Your task to perform on an android device: turn pop-ups on in chrome Image 0: 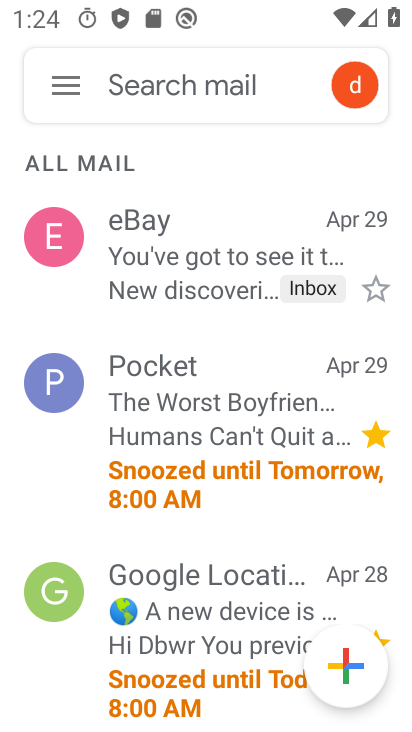
Step 0: press home button
Your task to perform on an android device: turn pop-ups on in chrome Image 1: 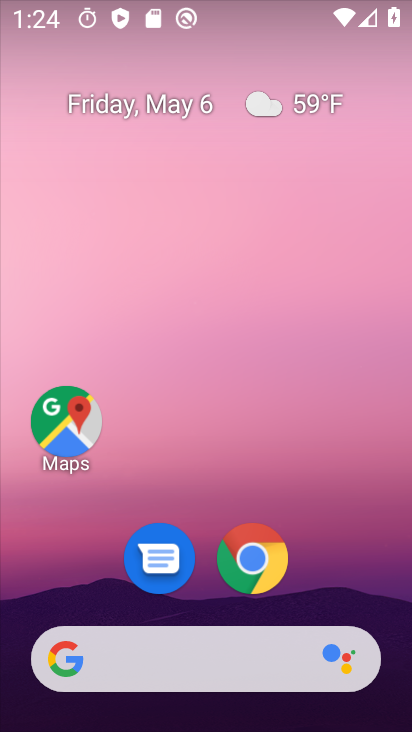
Step 1: click (255, 556)
Your task to perform on an android device: turn pop-ups on in chrome Image 2: 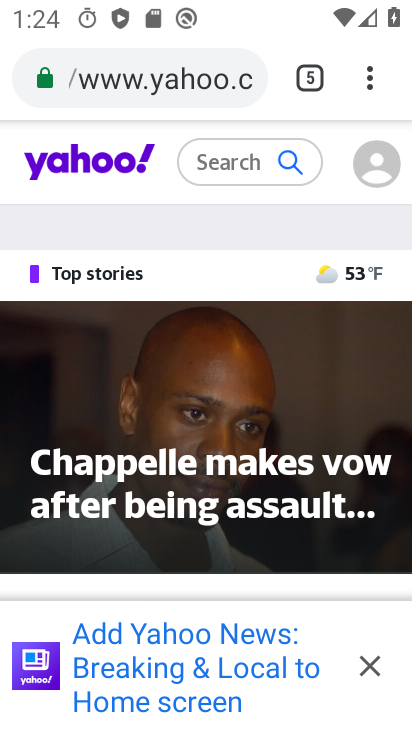
Step 2: drag from (371, 76) to (107, 599)
Your task to perform on an android device: turn pop-ups on in chrome Image 3: 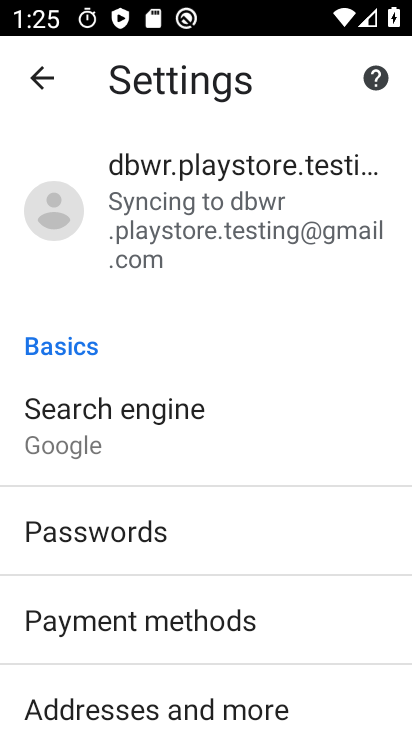
Step 3: drag from (159, 663) to (171, 409)
Your task to perform on an android device: turn pop-ups on in chrome Image 4: 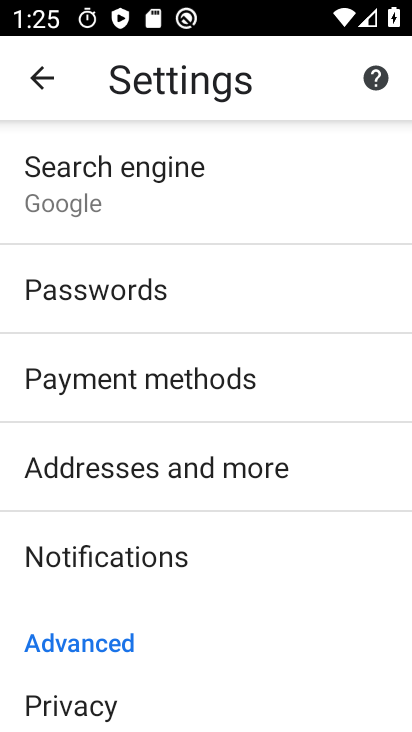
Step 4: drag from (179, 696) to (183, 391)
Your task to perform on an android device: turn pop-ups on in chrome Image 5: 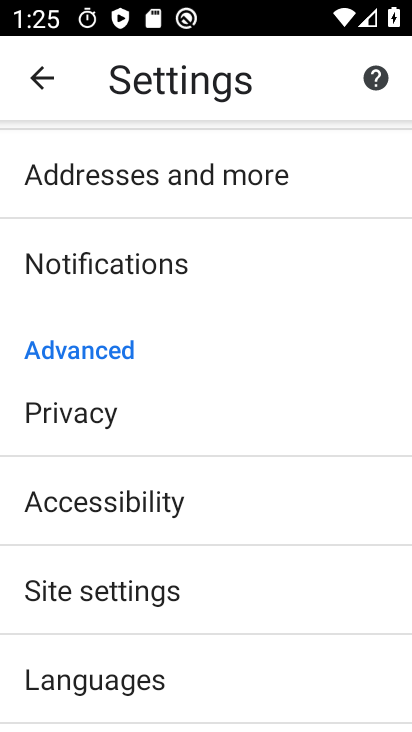
Step 5: drag from (191, 647) to (208, 336)
Your task to perform on an android device: turn pop-ups on in chrome Image 6: 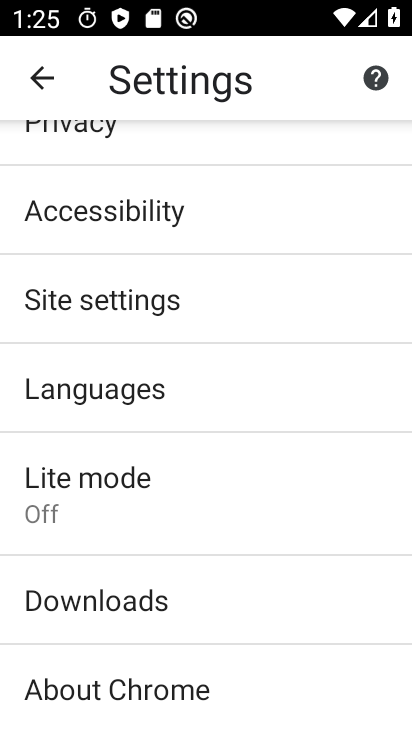
Step 6: drag from (207, 660) to (202, 465)
Your task to perform on an android device: turn pop-ups on in chrome Image 7: 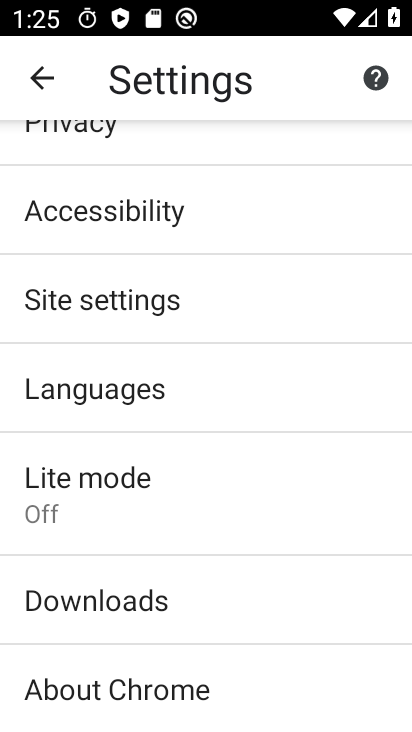
Step 7: click (126, 297)
Your task to perform on an android device: turn pop-ups on in chrome Image 8: 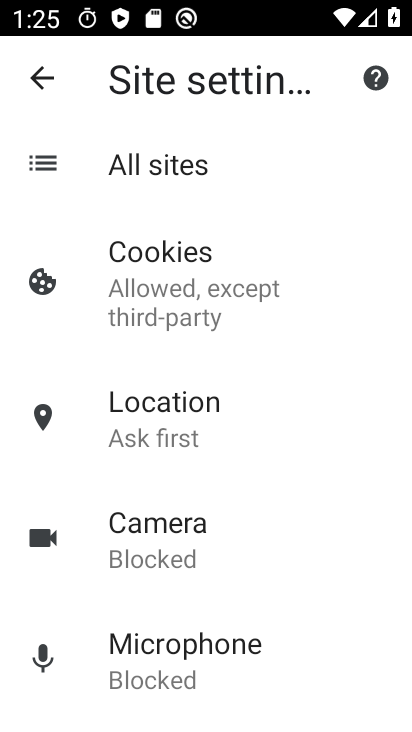
Step 8: drag from (205, 690) to (213, 476)
Your task to perform on an android device: turn pop-ups on in chrome Image 9: 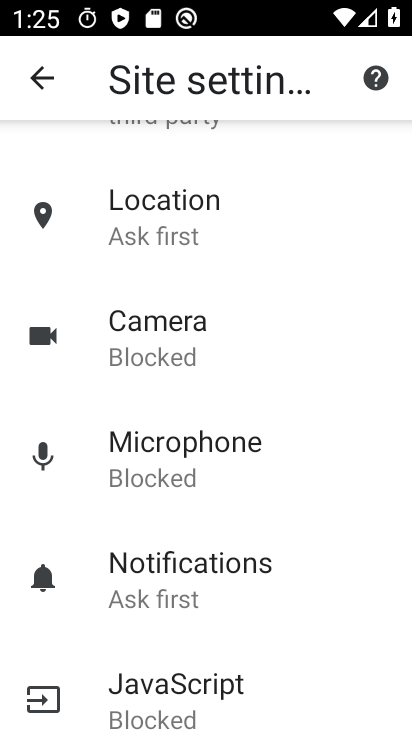
Step 9: drag from (148, 654) to (149, 422)
Your task to perform on an android device: turn pop-ups on in chrome Image 10: 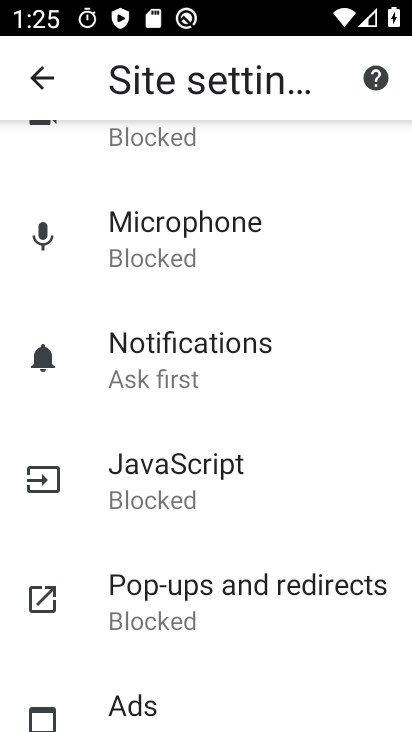
Step 10: click (184, 619)
Your task to perform on an android device: turn pop-ups on in chrome Image 11: 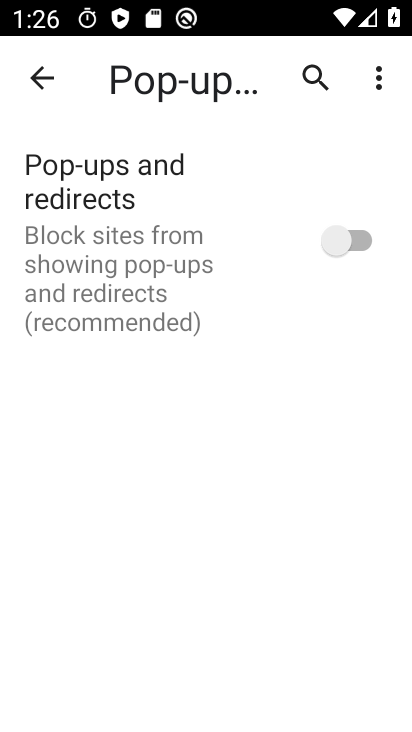
Step 11: click (353, 234)
Your task to perform on an android device: turn pop-ups on in chrome Image 12: 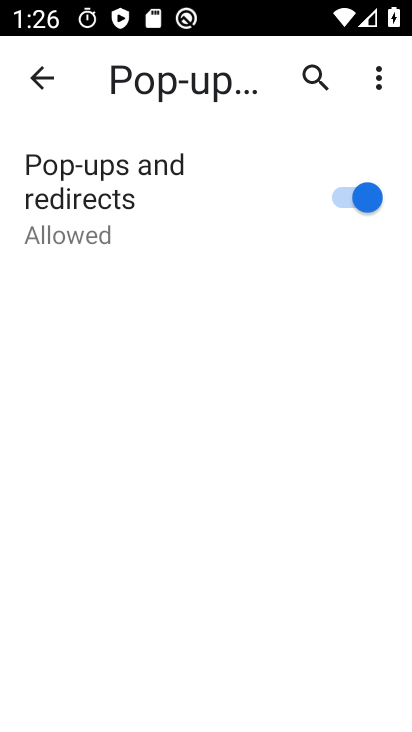
Step 12: task complete